Your task to perform on an android device: Open the stopwatch Image 0: 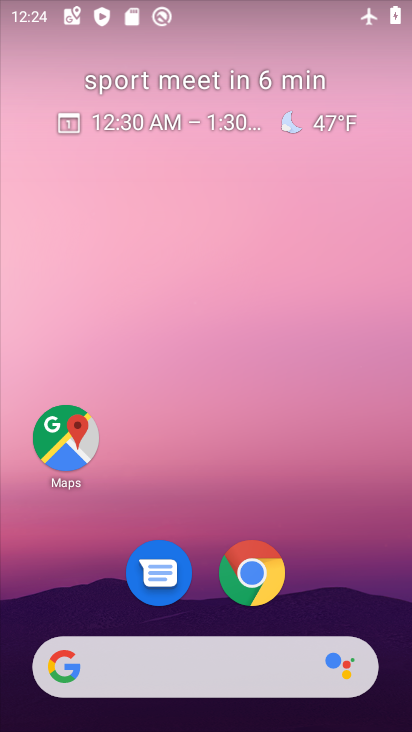
Step 0: drag from (197, 585) to (262, 163)
Your task to perform on an android device: Open the stopwatch Image 1: 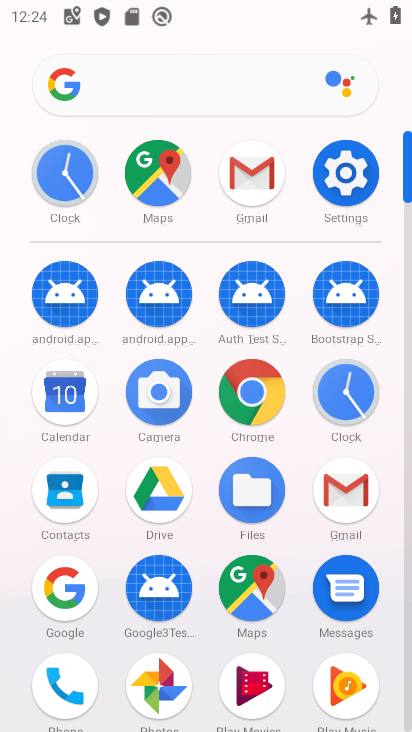
Step 1: click (345, 404)
Your task to perform on an android device: Open the stopwatch Image 2: 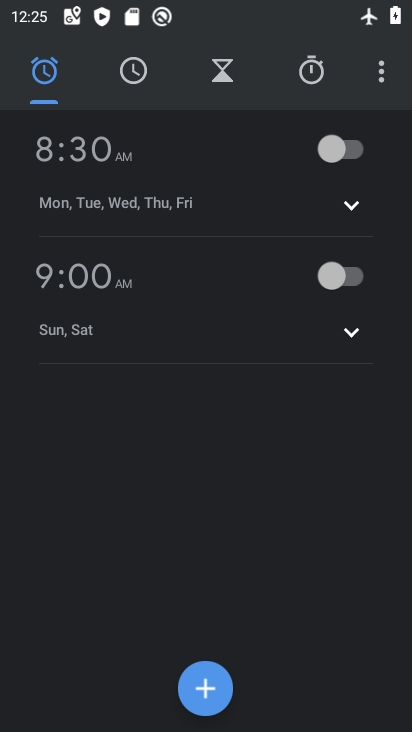
Step 2: click (325, 79)
Your task to perform on an android device: Open the stopwatch Image 3: 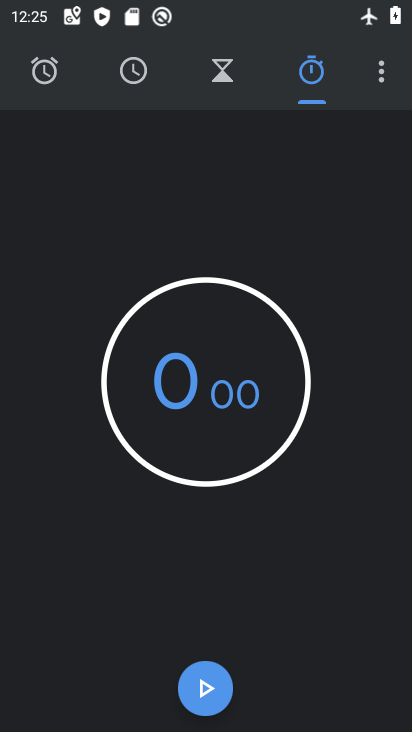
Step 3: click (219, 710)
Your task to perform on an android device: Open the stopwatch Image 4: 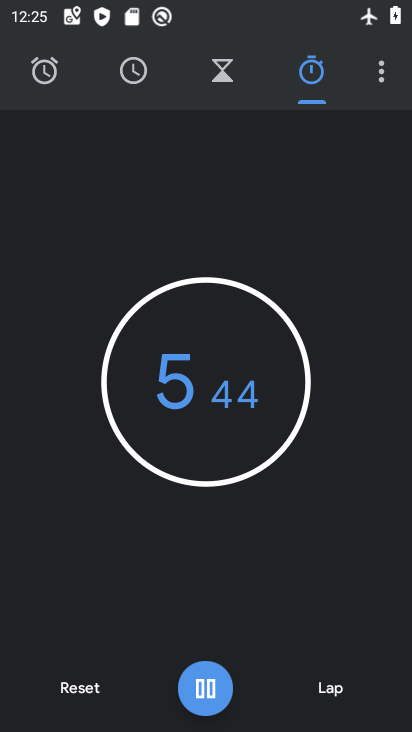
Step 4: task complete